Your task to perform on an android device: toggle priority inbox in the gmail app Image 0: 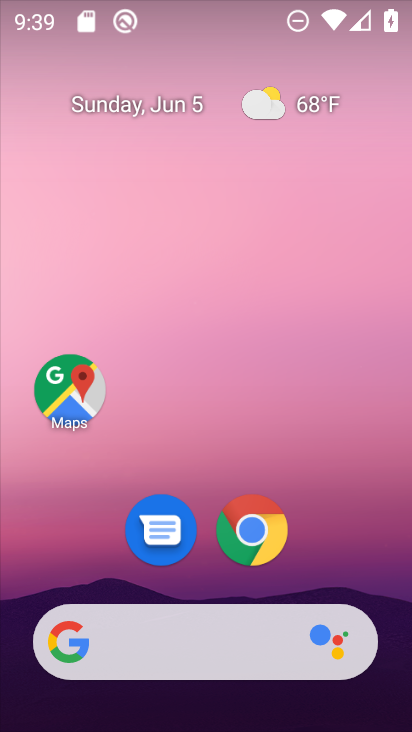
Step 0: drag from (400, 616) to (343, 17)
Your task to perform on an android device: toggle priority inbox in the gmail app Image 1: 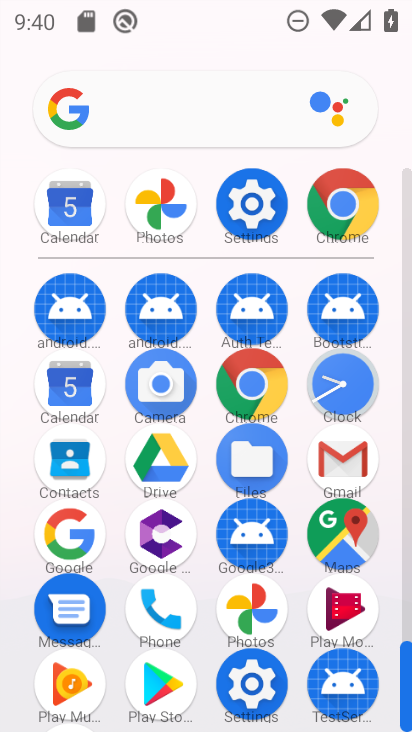
Step 1: click (341, 462)
Your task to perform on an android device: toggle priority inbox in the gmail app Image 2: 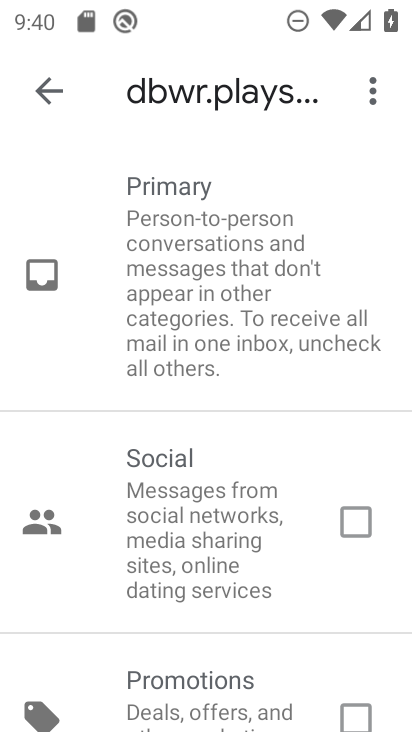
Step 2: press back button
Your task to perform on an android device: toggle priority inbox in the gmail app Image 3: 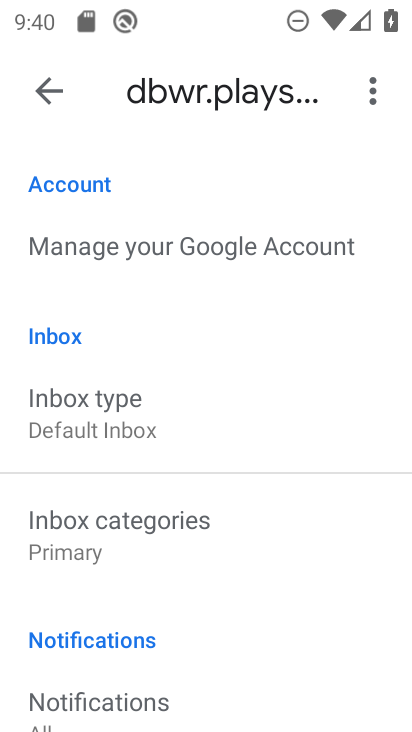
Step 3: click (87, 405)
Your task to perform on an android device: toggle priority inbox in the gmail app Image 4: 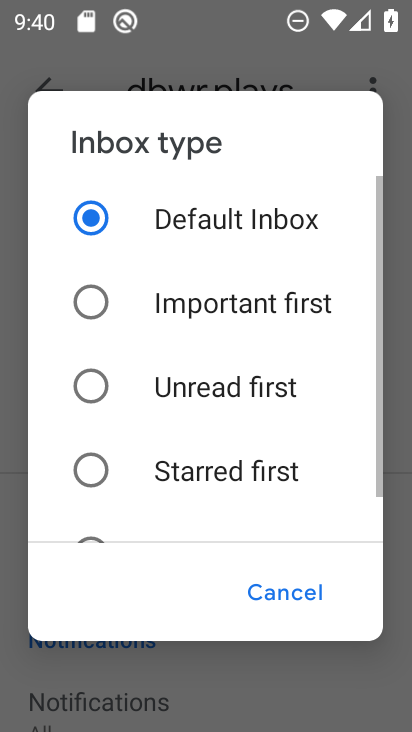
Step 4: drag from (171, 501) to (146, 156)
Your task to perform on an android device: toggle priority inbox in the gmail app Image 5: 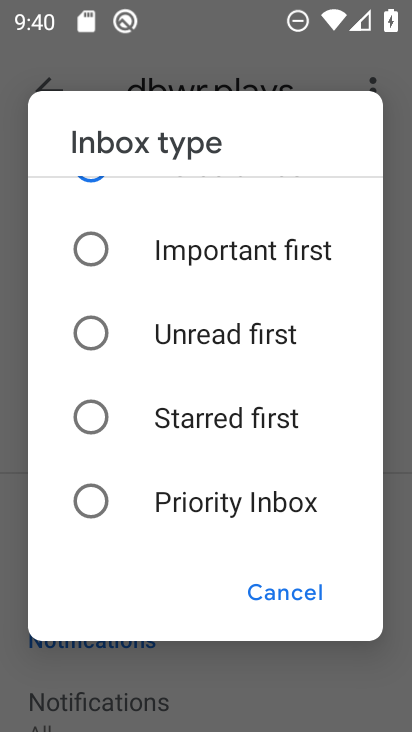
Step 5: click (91, 505)
Your task to perform on an android device: toggle priority inbox in the gmail app Image 6: 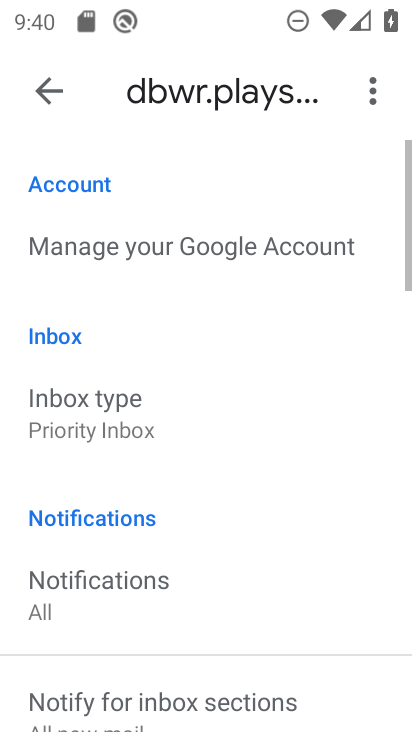
Step 6: task complete